Your task to perform on an android device: turn off wifi Image 0: 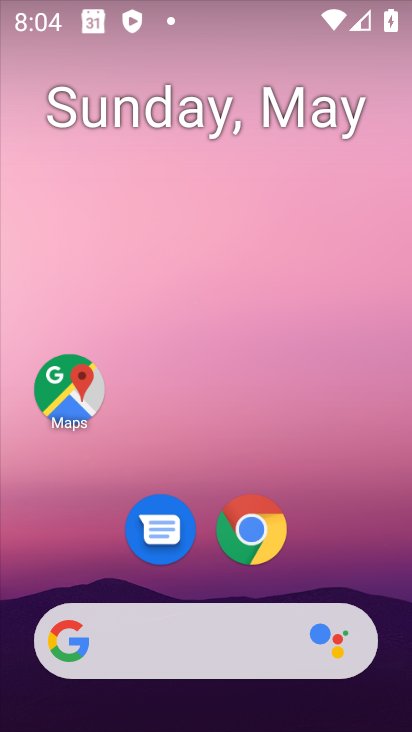
Step 0: drag from (136, 19) to (120, 473)
Your task to perform on an android device: turn off wifi Image 1: 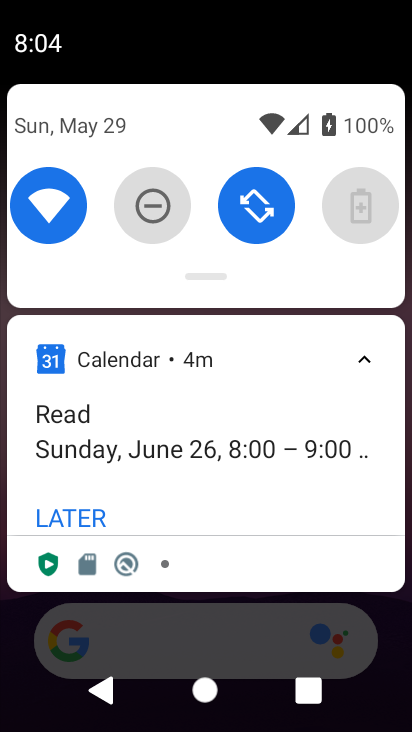
Step 1: click (53, 196)
Your task to perform on an android device: turn off wifi Image 2: 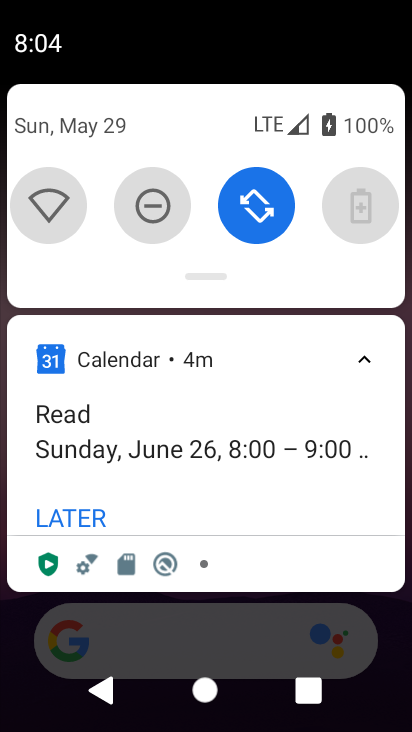
Step 2: task complete